Your task to perform on an android device: Search for "logitech g pro" on amazon, select the first entry, add it to the cart, then select checkout. Image 0: 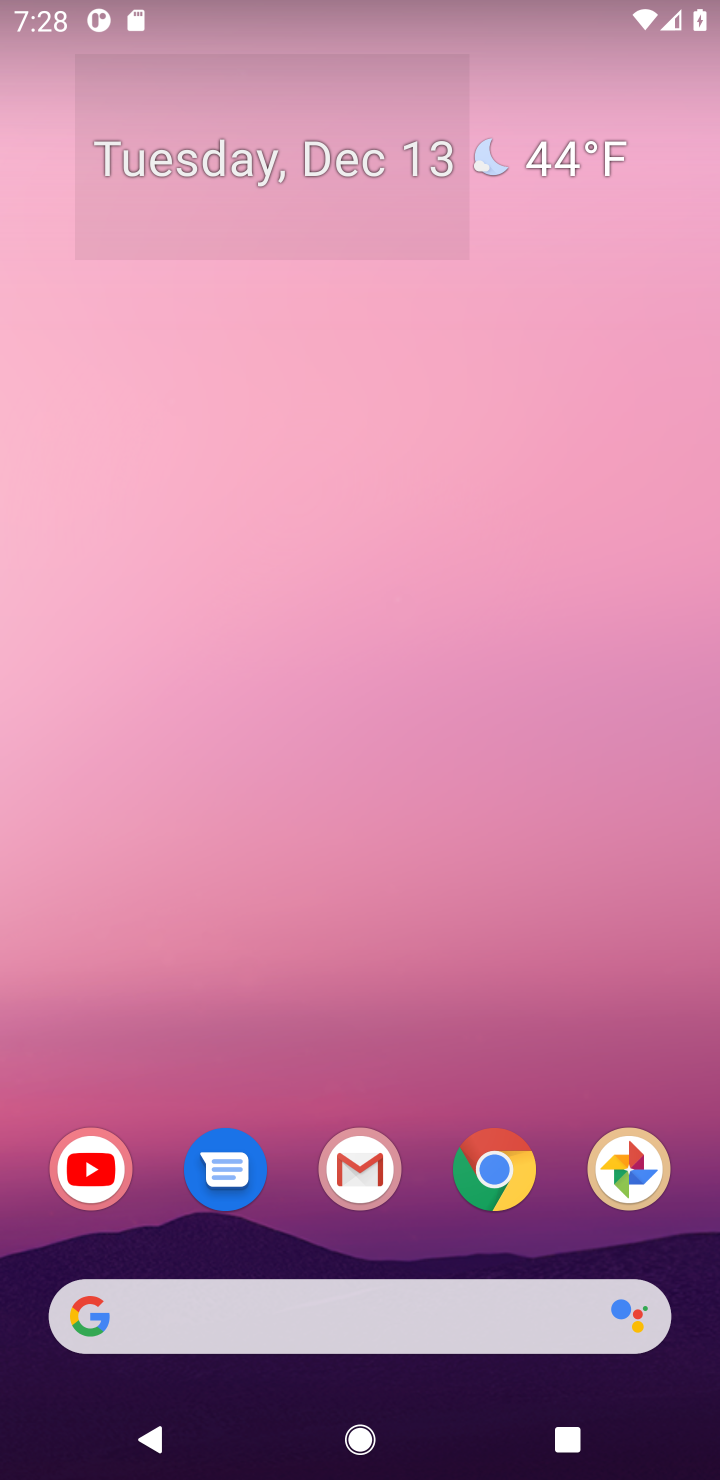
Step 0: click (419, 1324)
Your task to perform on an android device: Search for "logitech g pro" on amazon, select the first entry, add it to the cart, then select checkout. Image 1: 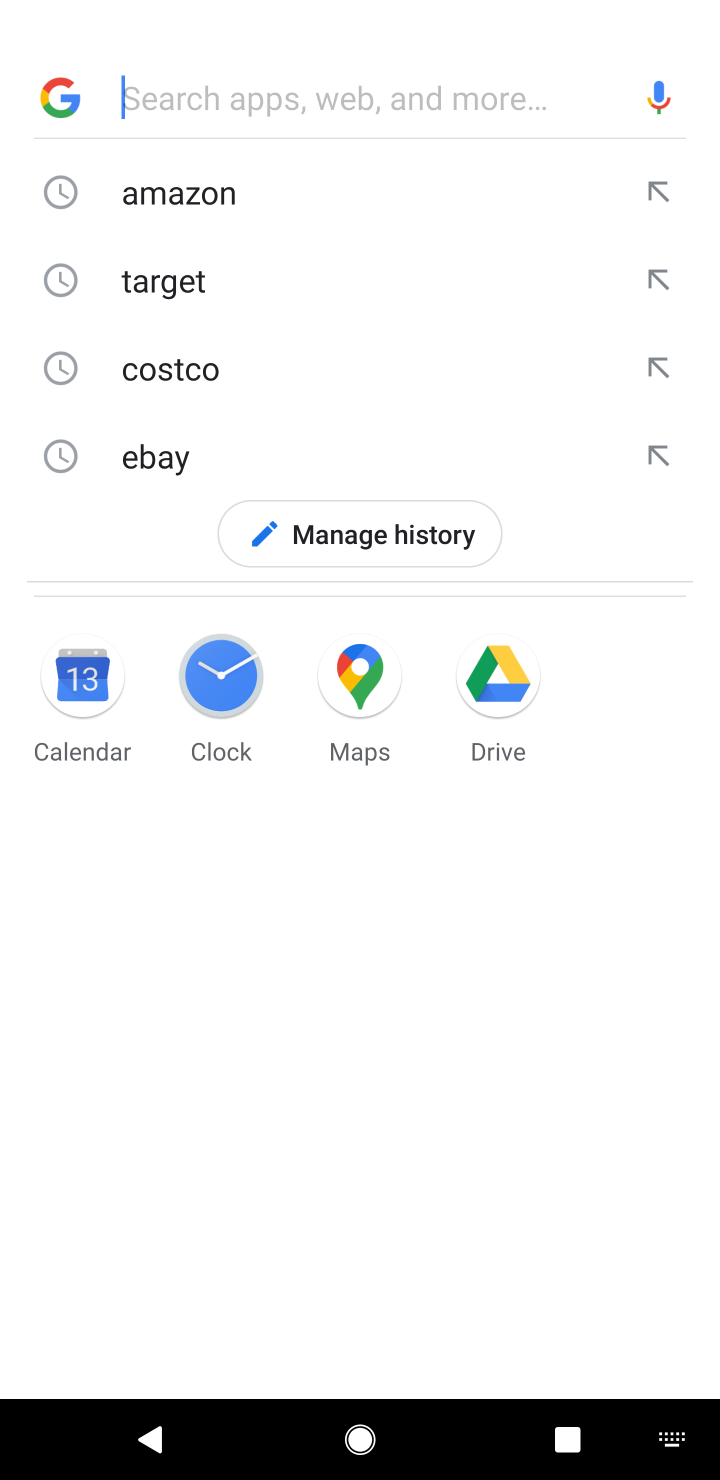
Step 1: click (277, 171)
Your task to perform on an android device: Search for "logitech g pro" on amazon, select the first entry, add it to the cart, then select checkout. Image 2: 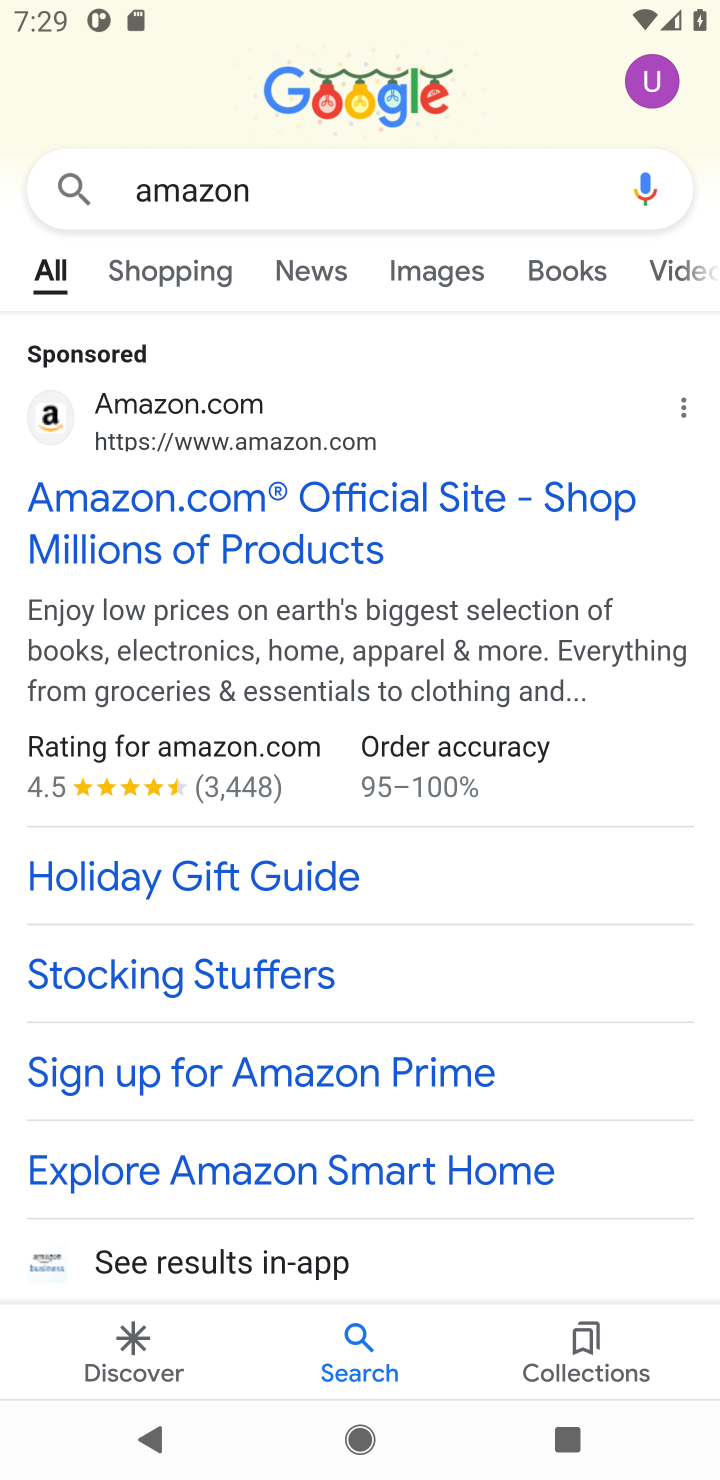
Step 2: click (261, 564)
Your task to perform on an android device: Search for "logitech g pro" on amazon, select the first entry, add it to the cart, then select checkout. Image 3: 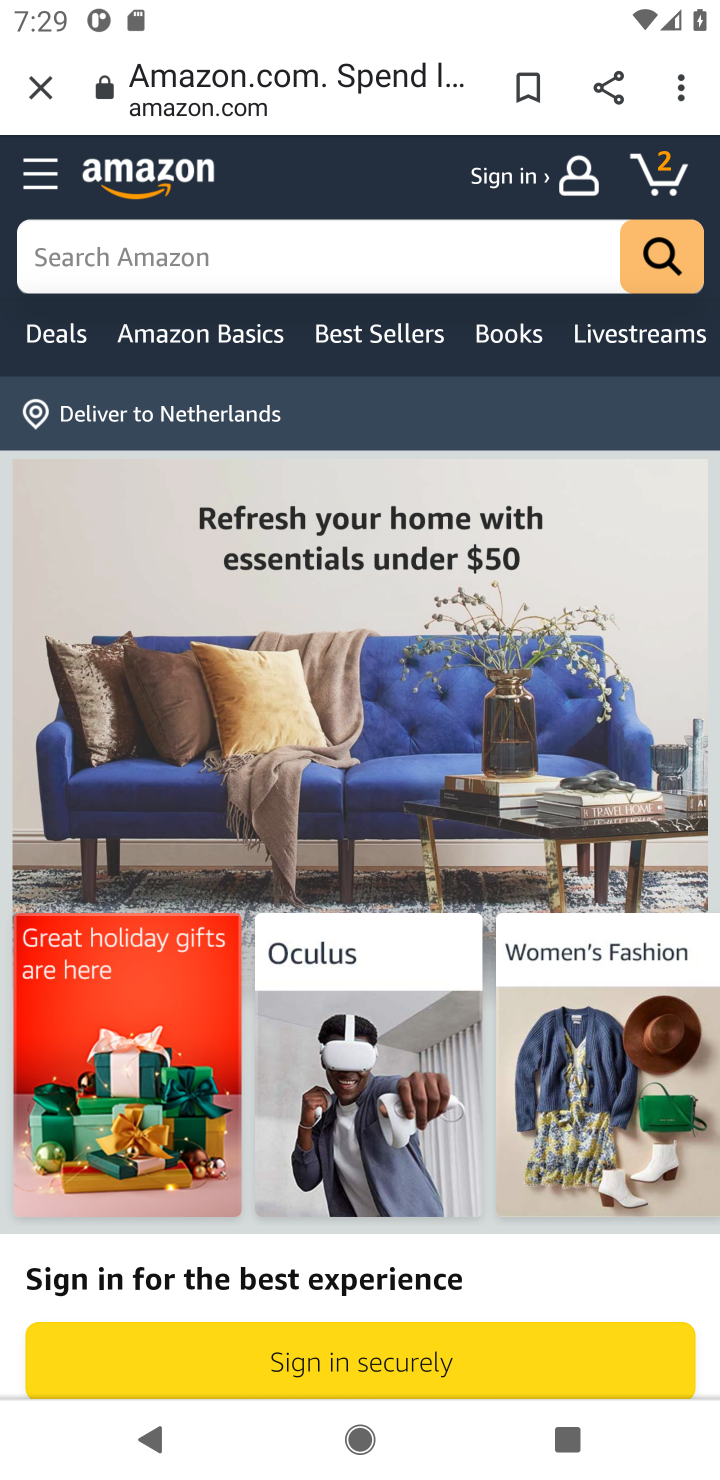
Step 3: click (217, 272)
Your task to perform on an android device: Search for "logitech g pro" on amazon, select the first entry, add it to the cart, then select checkout. Image 4: 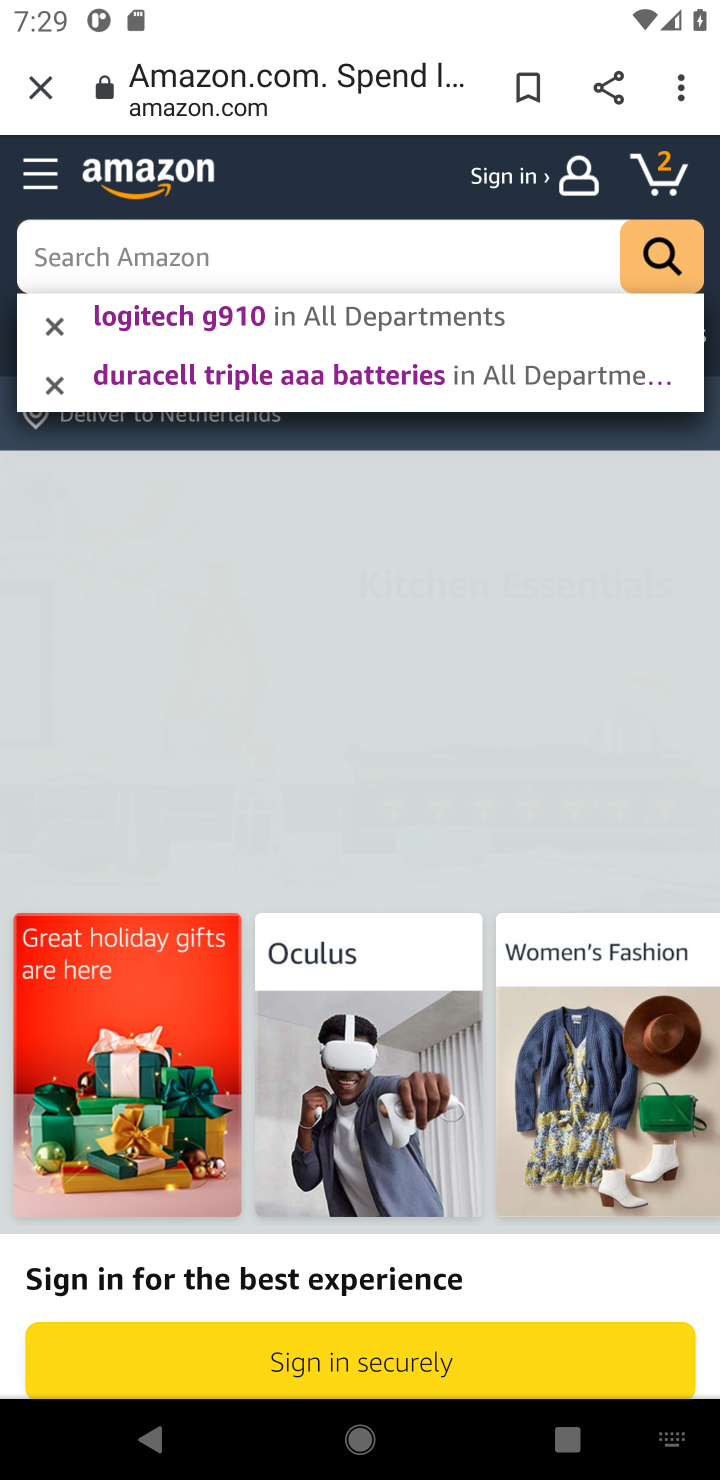
Step 4: type "logitech g pro"
Your task to perform on an android device: Search for "logitech g pro" on amazon, select the first entry, add it to the cart, then select checkout. Image 5: 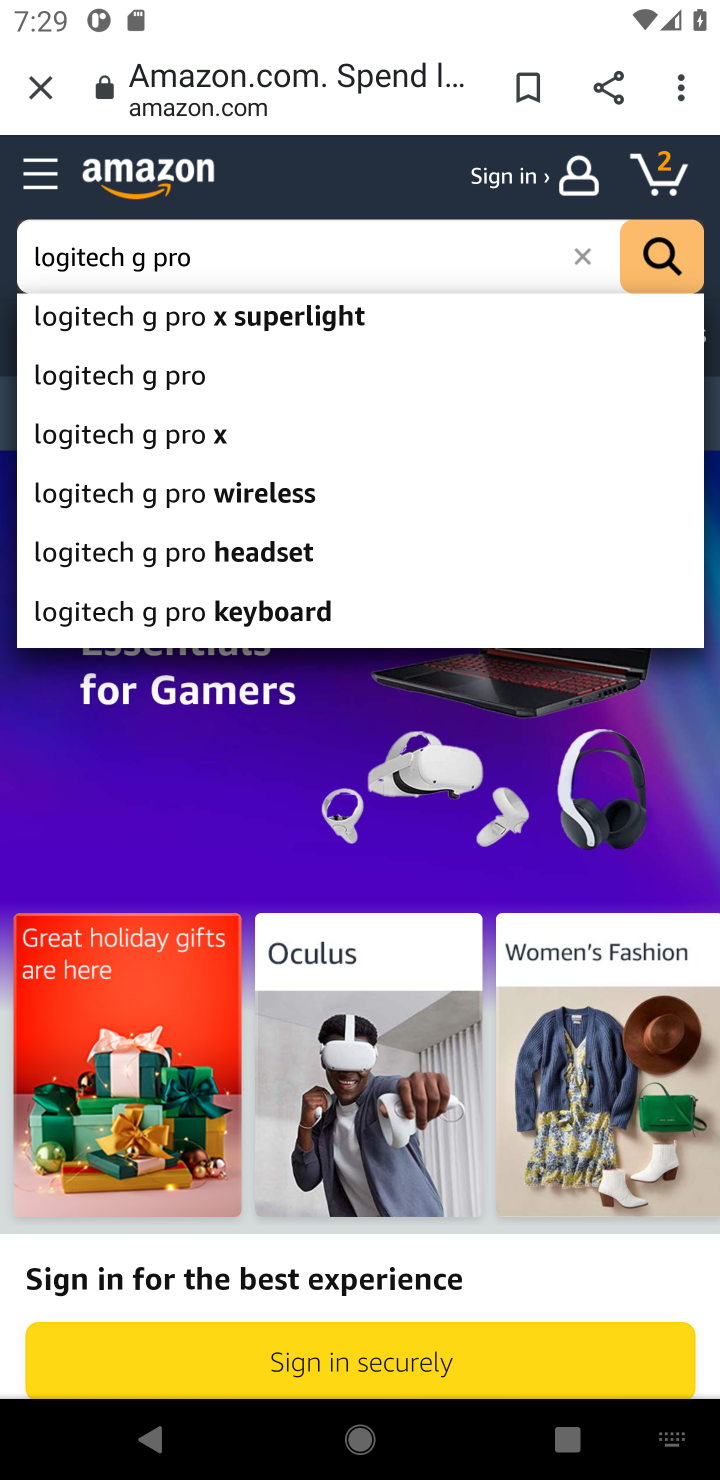
Step 5: click (71, 365)
Your task to perform on an android device: Search for "logitech g pro" on amazon, select the first entry, add it to the cart, then select checkout. Image 6: 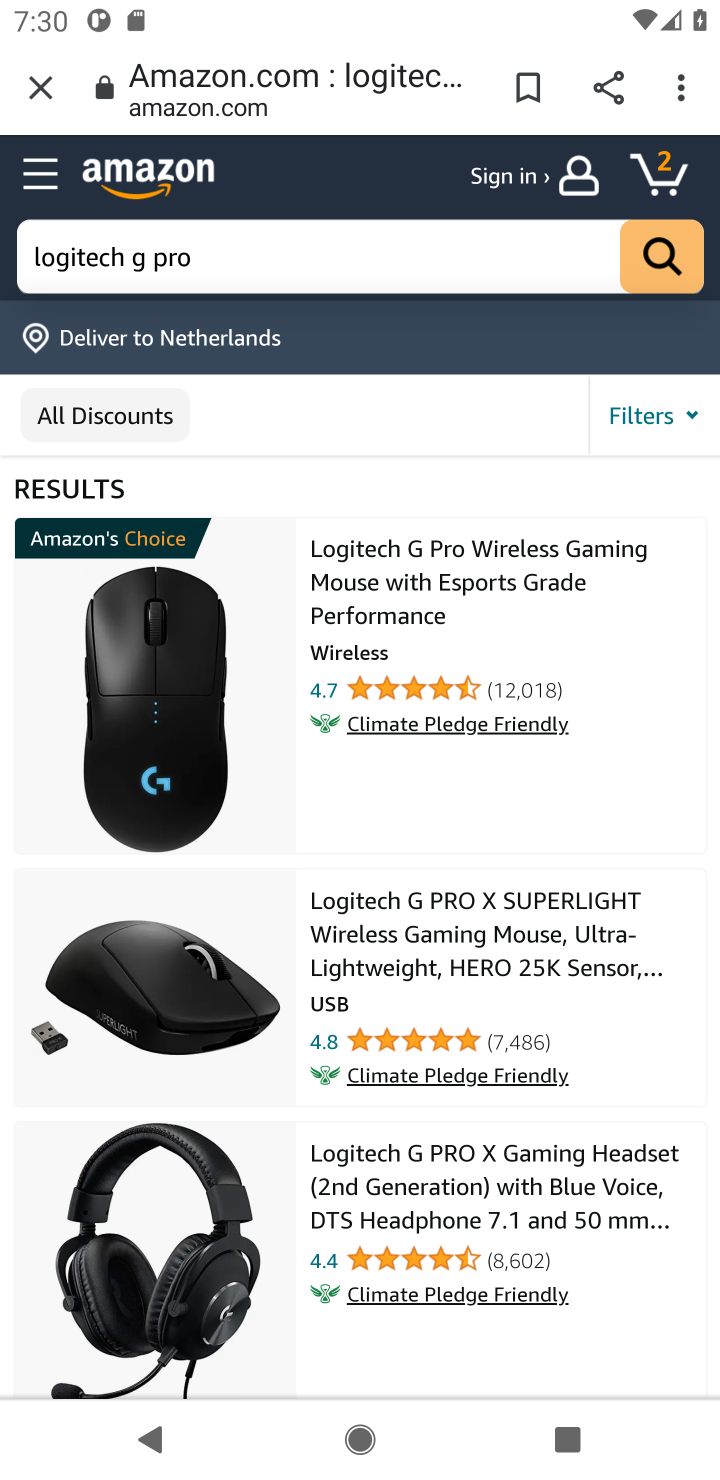
Step 6: click (406, 620)
Your task to perform on an android device: Search for "logitech g pro" on amazon, select the first entry, add it to the cart, then select checkout. Image 7: 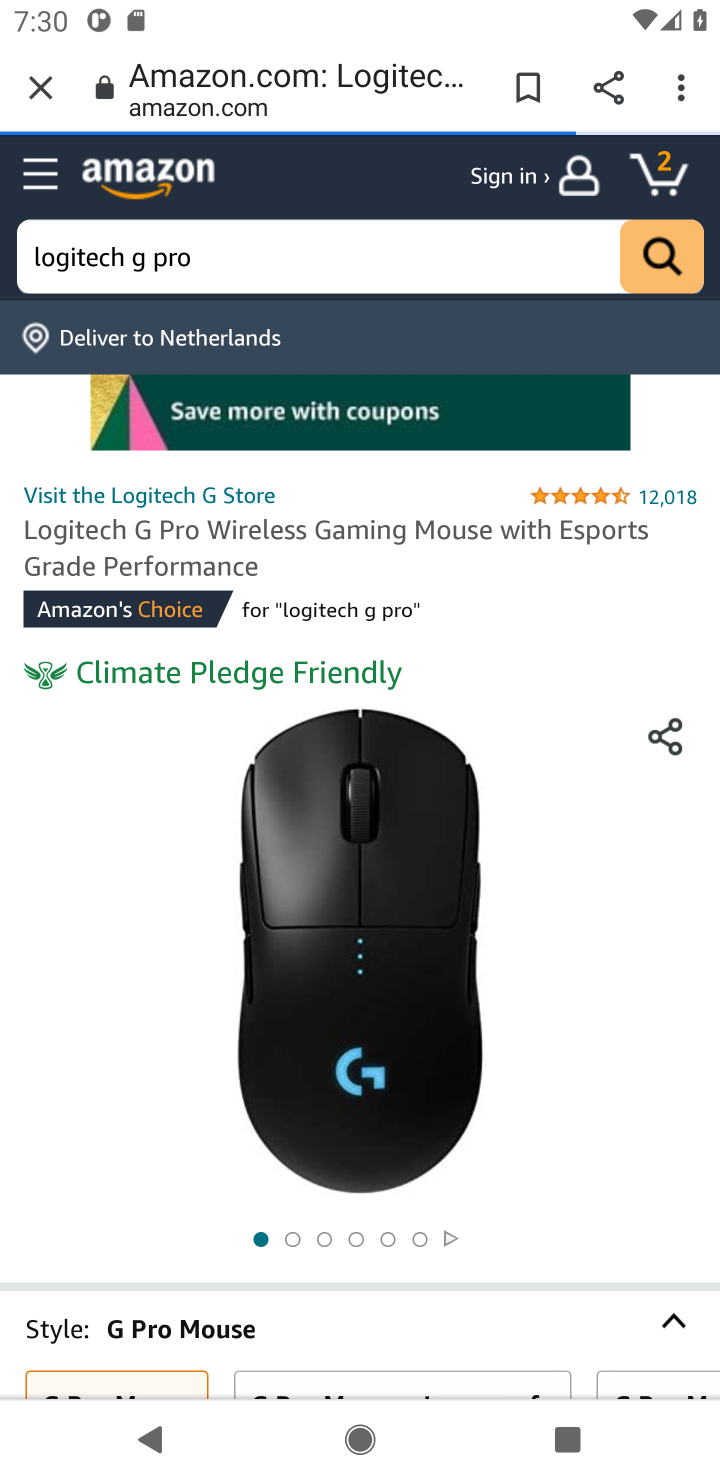
Step 7: drag from (187, 1236) to (249, 308)
Your task to perform on an android device: Search for "logitech g pro" on amazon, select the first entry, add it to the cart, then select checkout. Image 8: 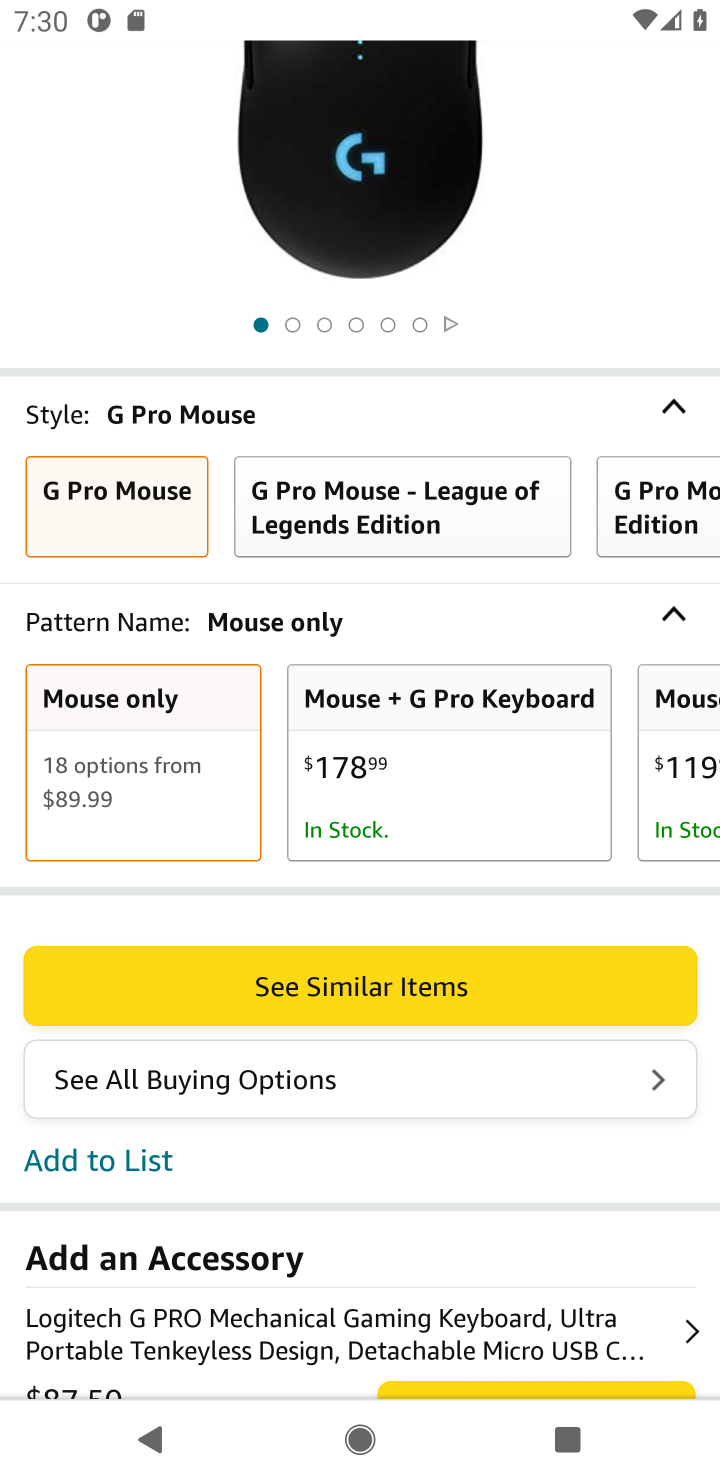
Step 8: click (394, 997)
Your task to perform on an android device: Search for "logitech g pro" on amazon, select the first entry, add it to the cart, then select checkout. Image 9: 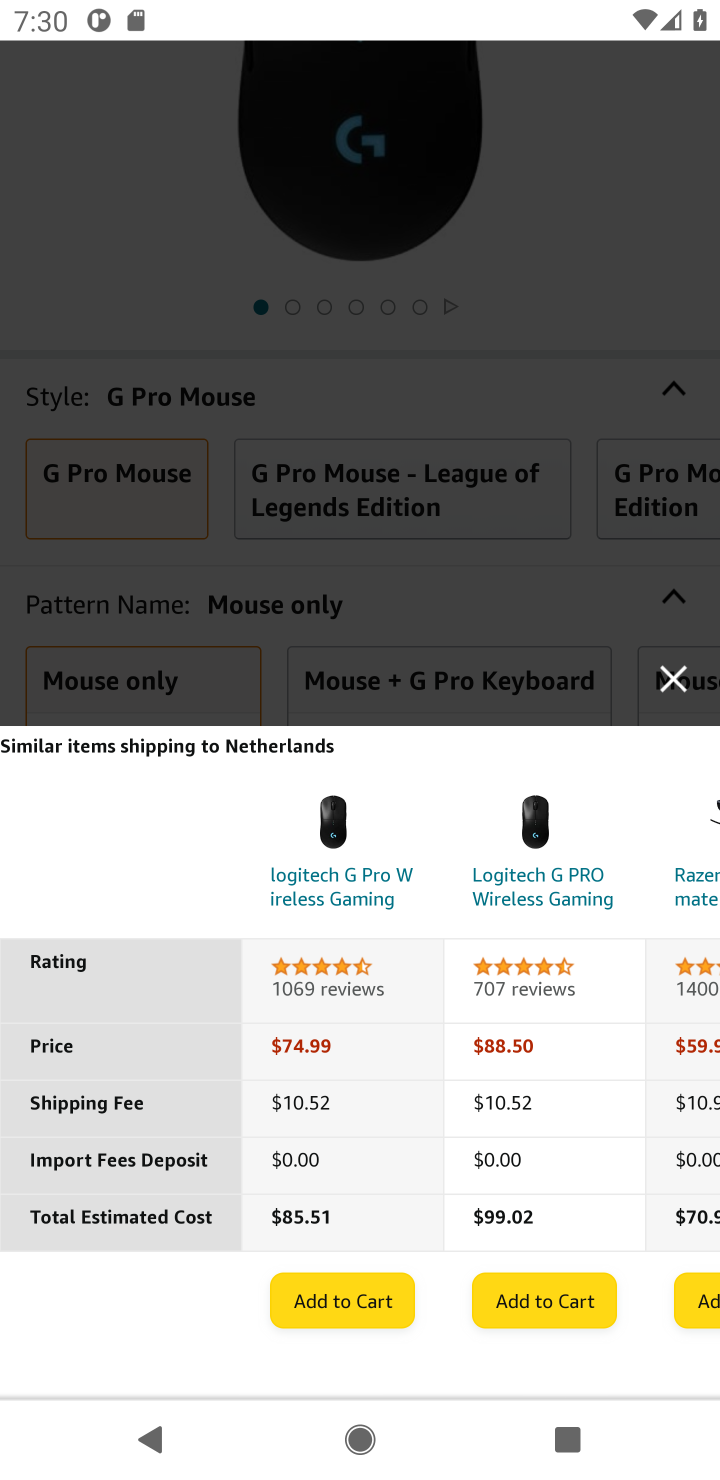
Step 9: click (367, 1291)
Your task to perform on an android device: Search for "logitech g pro" on amazon, select the first entry, add it to the cart, then select checkout. Image 10: 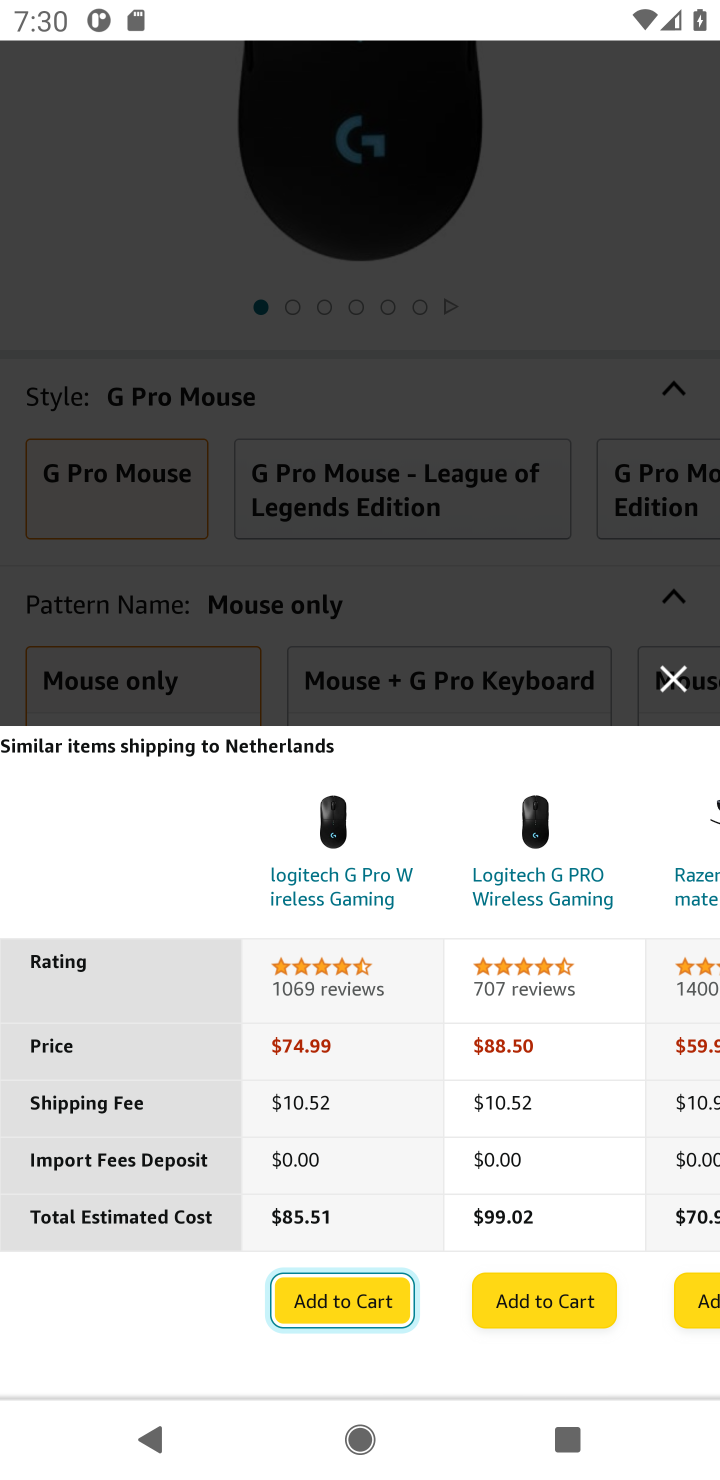
Step 10: task complete